Your task to perform on an android device: Open settings Image 0: 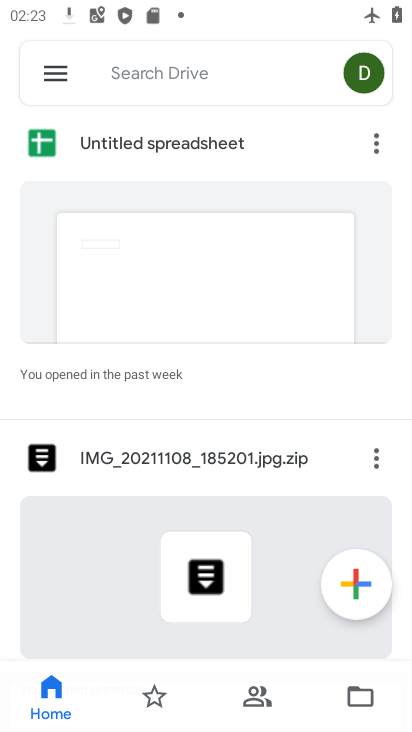
Step 0: press home button
Your task to perform on an android device: Open settings Image 1: 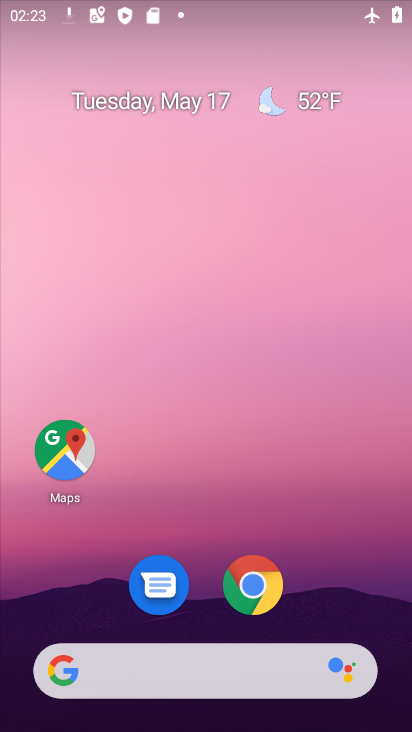
Step 1: drag from (228, 417) to (267, 5)
Your task to perform on an android device: Open settings Image 2: 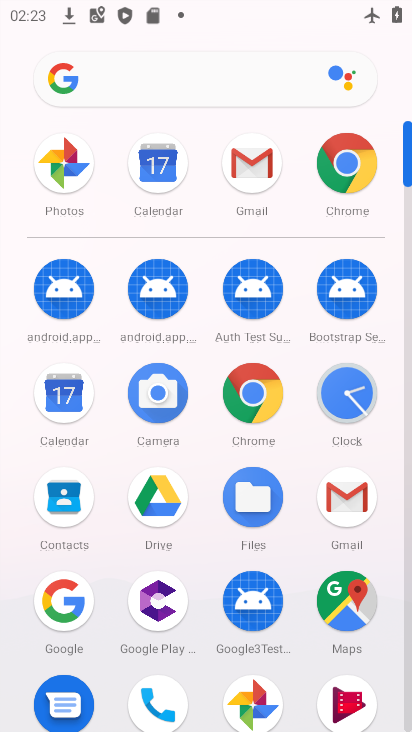
Step 2: drag from (173, 345) to (172, 306)
Your task to perform on an android device: Open settings Image 3: 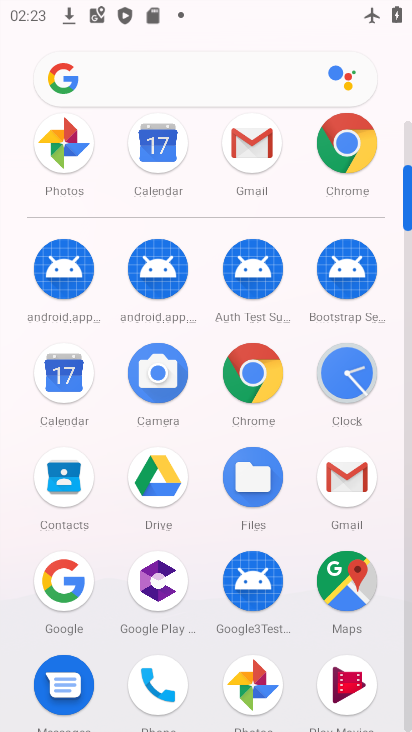
Step 3: drag from (213, 459) to (207, 170)
Your task to perform on an android device: Open settings Image 4: 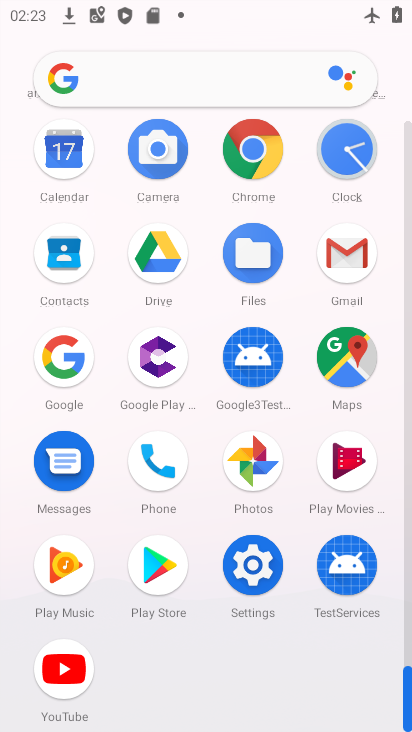
Step 4: click (248, 572)
Your task to perform on an android device: Open settings Image 5: 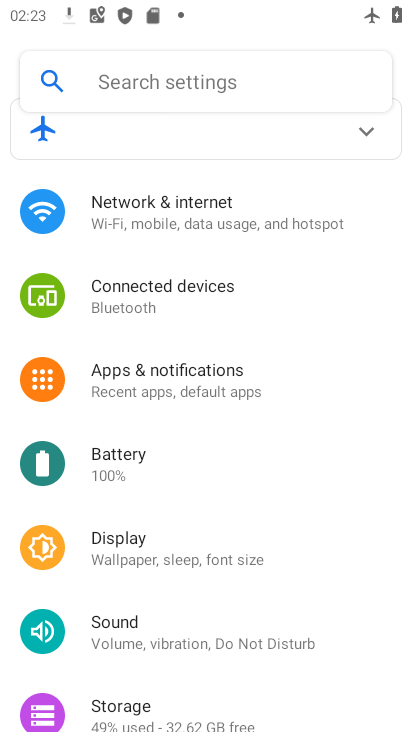
Step 5: task complete